Your task to perform on an android device: open chrome and create a bookmark for the current page Image 0: 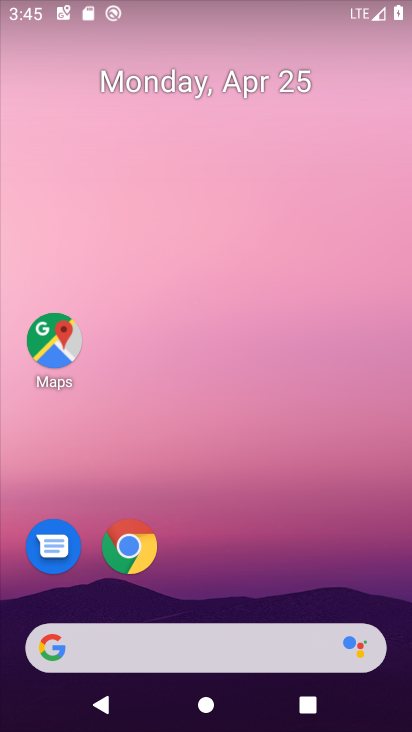
Step 0: click (128, 534)
Your task to perform on an android device: open chrome and create a bookmark for the current page Image 1: 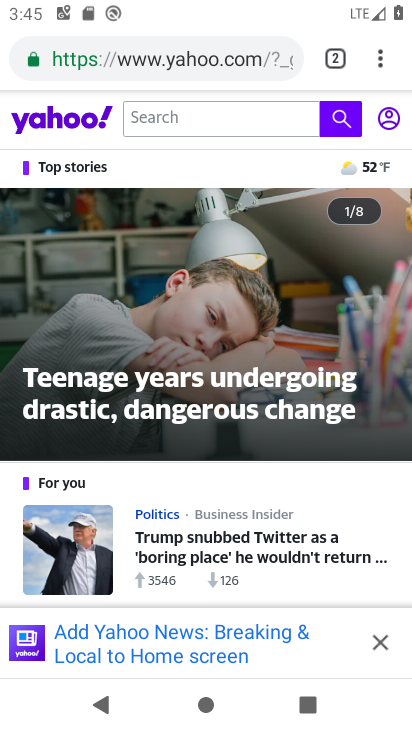
Step 1: click (388, 48)
Your task to perform on an android device: open chrome and create a bookmark for the current page Image 2: 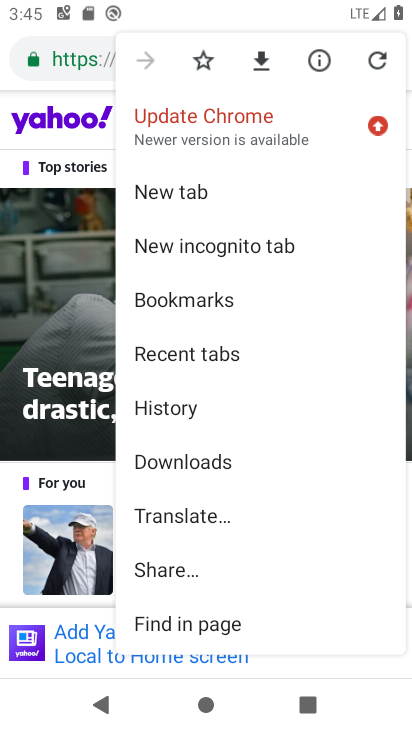
Step 2: click (199, 57)
Your task to perform on an android device: open chrome and create a bookmark for the current page Image 3: 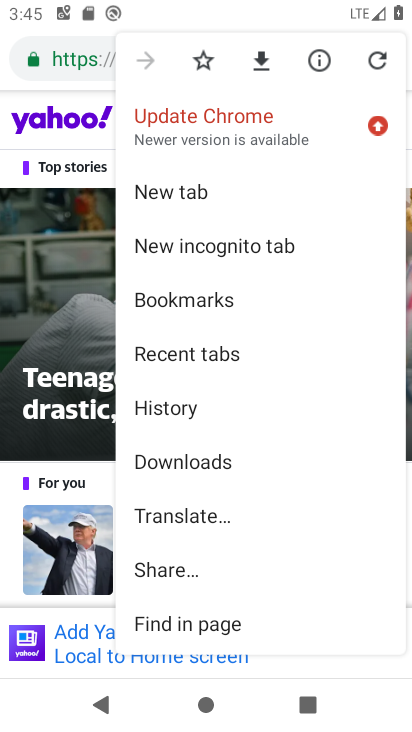
Step 3: click (206, 62)
Your task to perform on an android device: open chrome and create a bookmark for the current page Image 4: 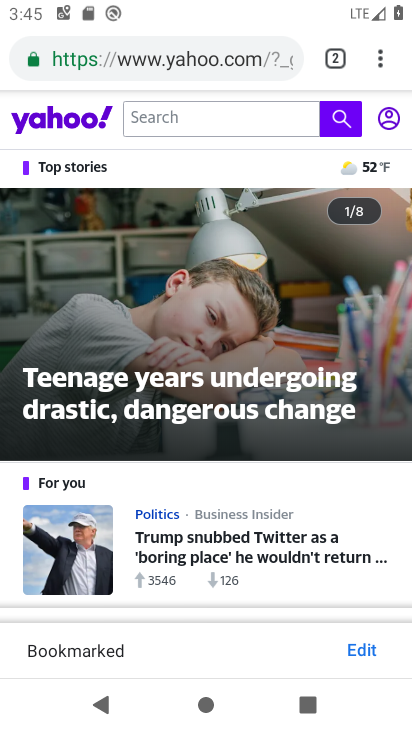
Step 4: task complete